Your task to perform on an android device: find which apps use the phone's location Image 0: 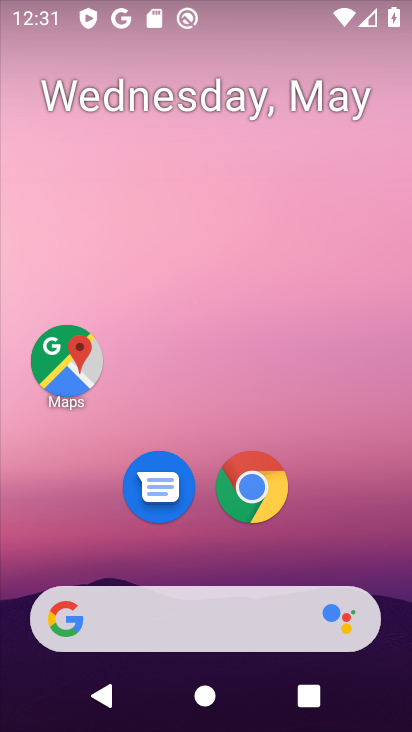
Step 0: drag from (206, 560) to (313, 28)
Your task to perform on an android device: find which apps use the phone's location Image 1: 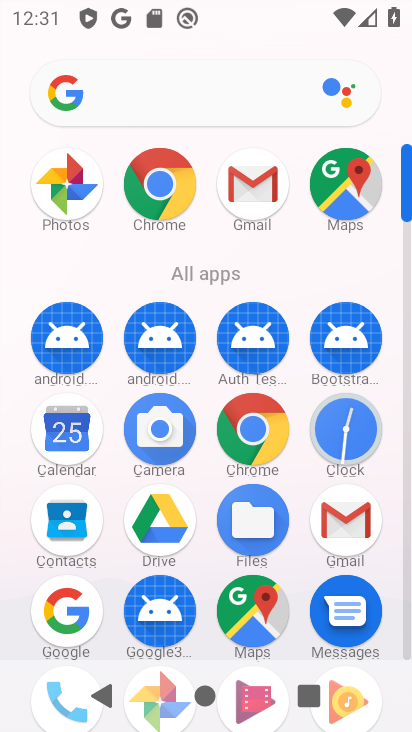
Step 1: drag from (211, 559) to (268, 217)
Your task to perform on an android device: find which apps use the phone's location Image 2: 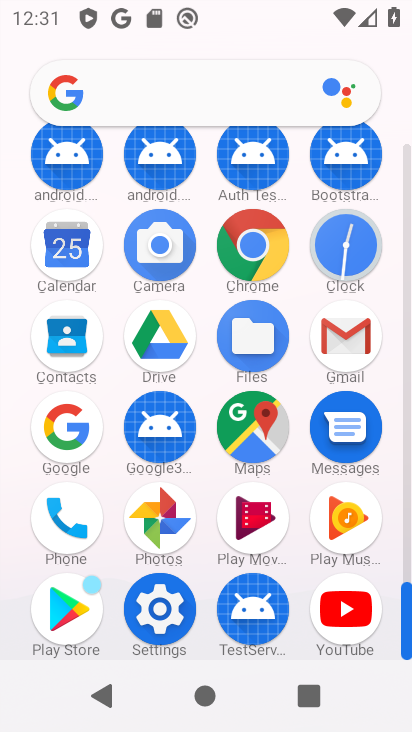
Step 2: click (169, 627)
Your task to perform on an android device: find which apps use the phone's location Image 3: 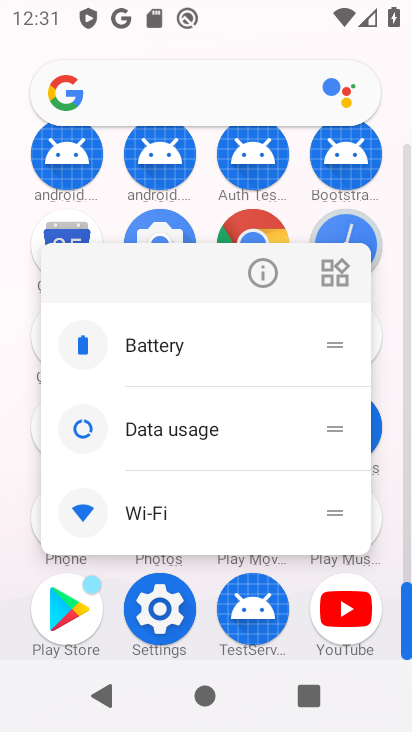
Step 3: click (152, 633)
Your task to perform on an android device: find which apps use the phone's location Image 4: 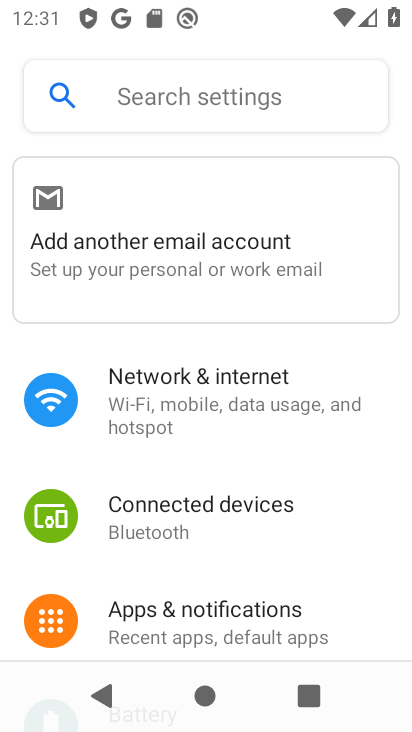
Step 4: drag from (221, 579) to (266, 273)
Your task to perform on an android device: find which apps use the phone's location Image 5: 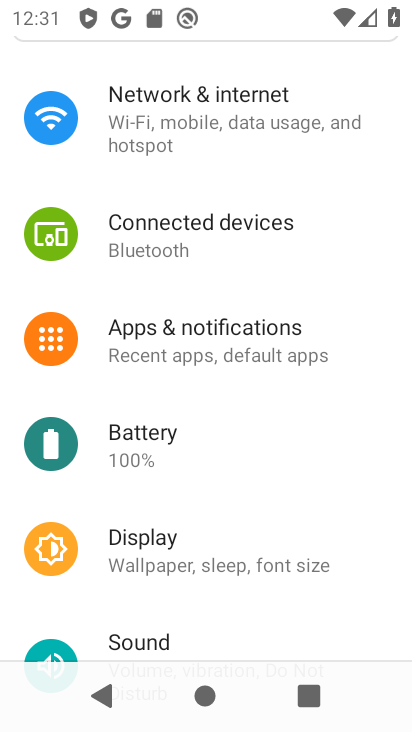
Step 5: drag from (183, 584) to (335, 33)
Your task to perform on an android device: find which apps use the phone's location Image 6: 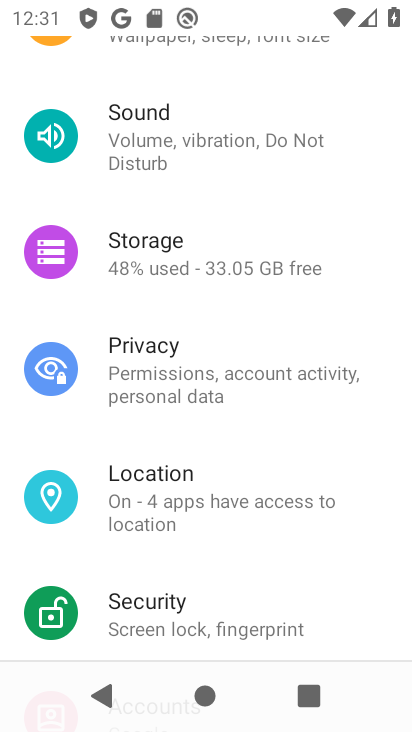
Step 6: click (194, 493)
Your task to perform on an android device: find which apps use the phone's location Image 7: 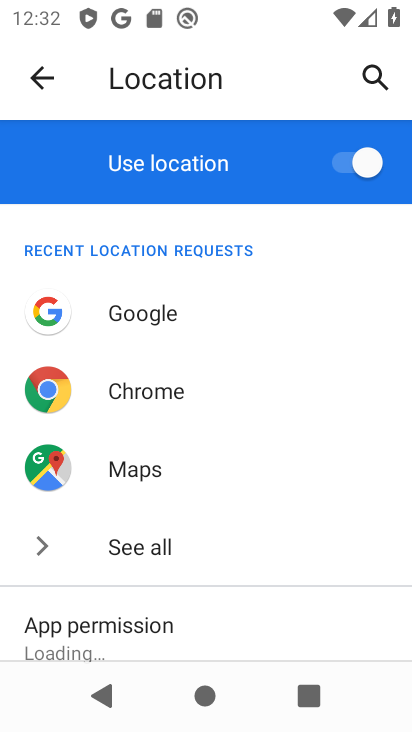
Step 7: drag from (163, 544) to (228, 300)
Your task to perform on an android device: find which apps use the phone's location Image 8: 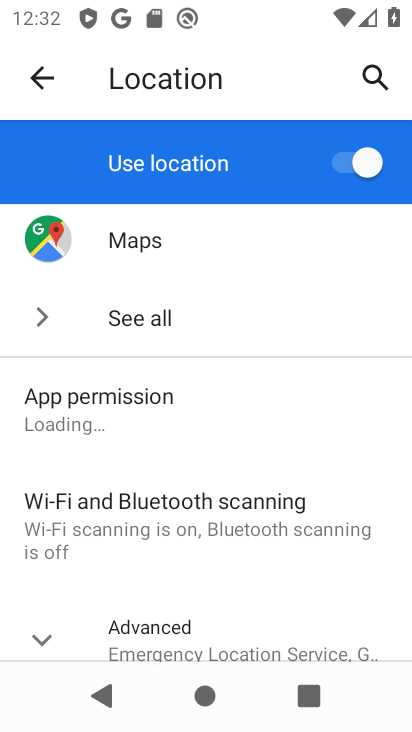
Step 8: click (147, 425)
Your task to perform on an android device: find which apps use the phone's location Image 9: 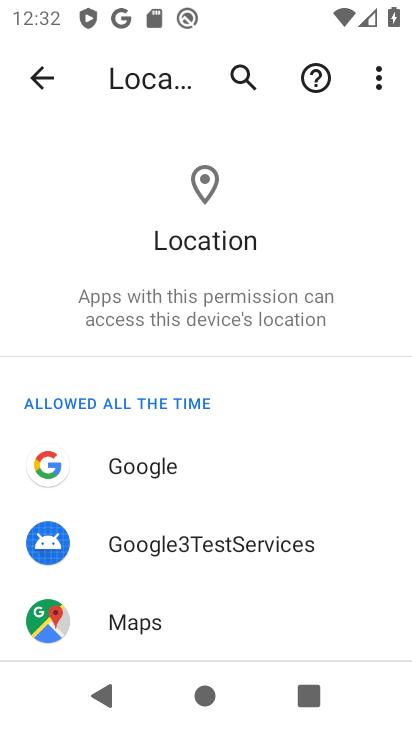
Step 9: task complete